Your task to perform on an android device: Open settings Image 0: 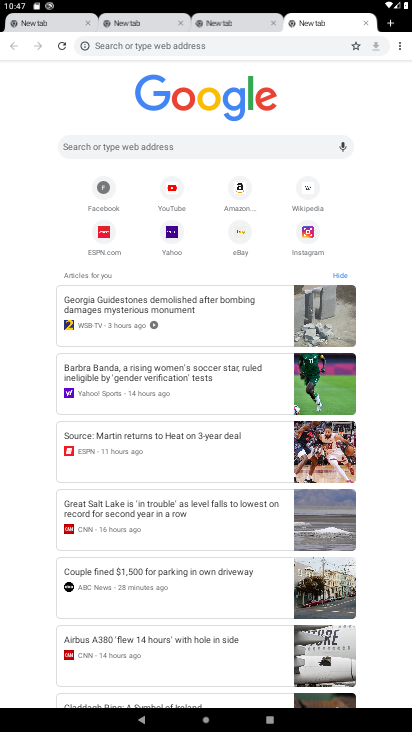
Step 0: press home button
Your task to perform on an android device: Open settings Image 1: 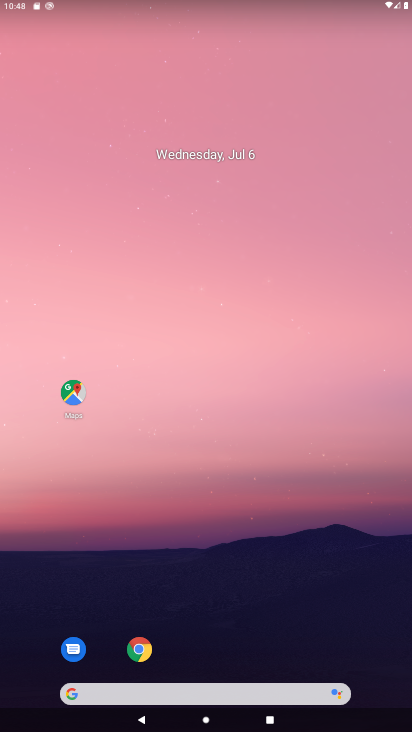
Step 1: drag from (212, 617) to (250, 19)
Your task to perform on an android device: Open settings Image 2: 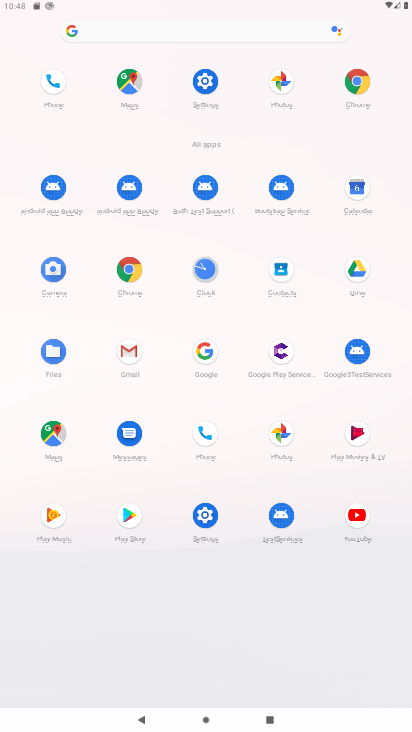
Step 2: click (203, 79)
Your task to perform on an android device: Open settings Image 3: 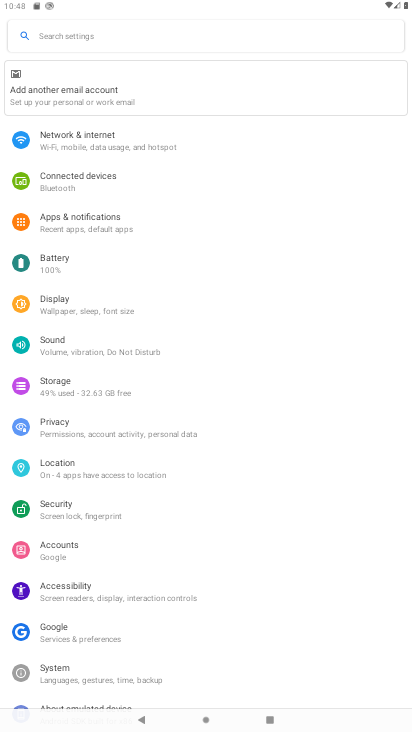
Step 3: task complete